Your task to perform on an android device: change alarm snooze length Image 0: 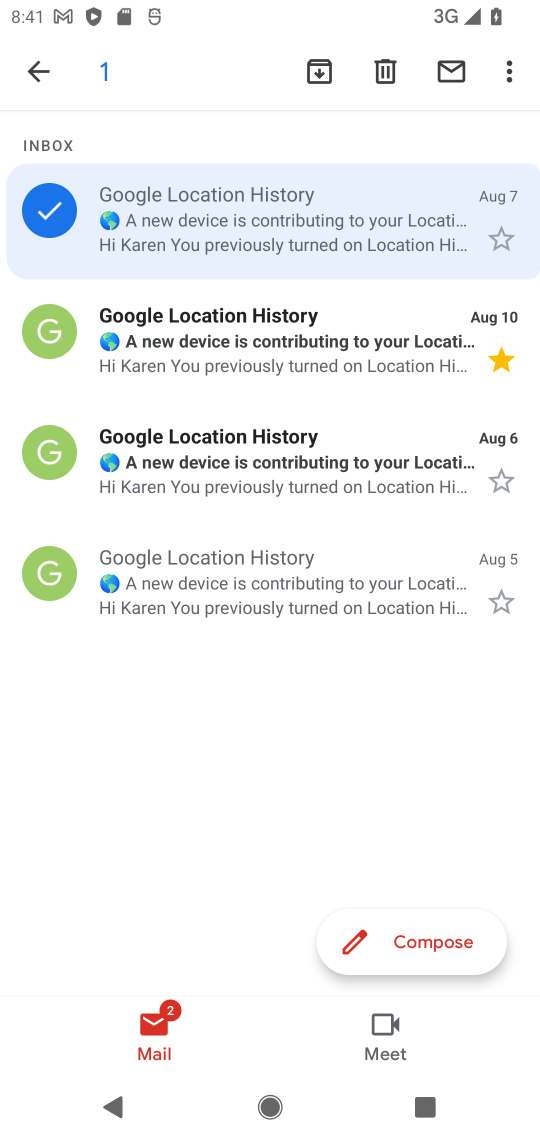
Step 0: press home button
Your task to perform on an android device: change alarm snooze length Image 1: 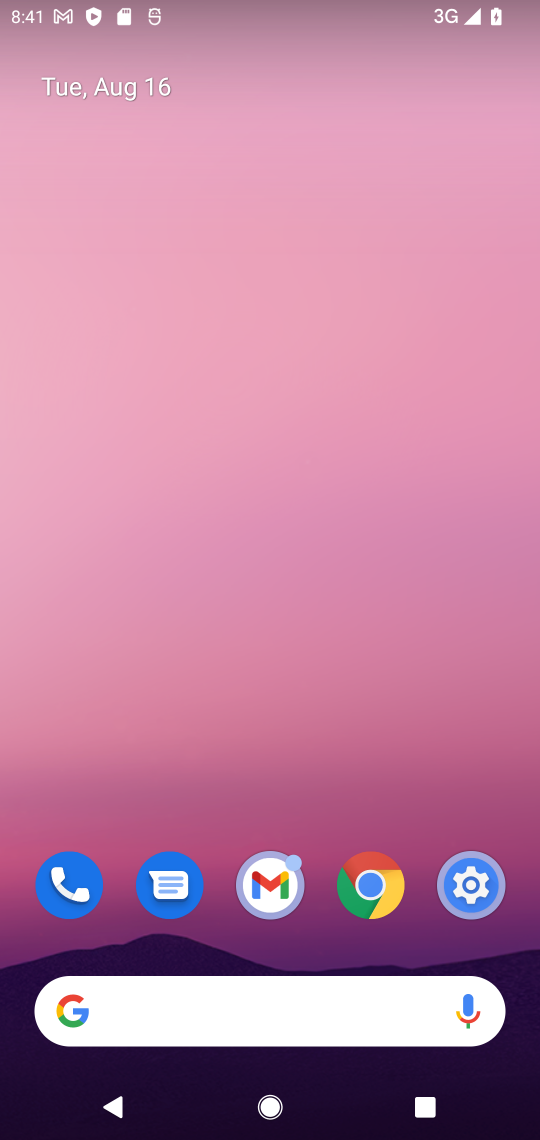
Step 1: drag from (214, 849) to (273, 248)
Your task to perform on an android device: change alarm snooze length Image 2: 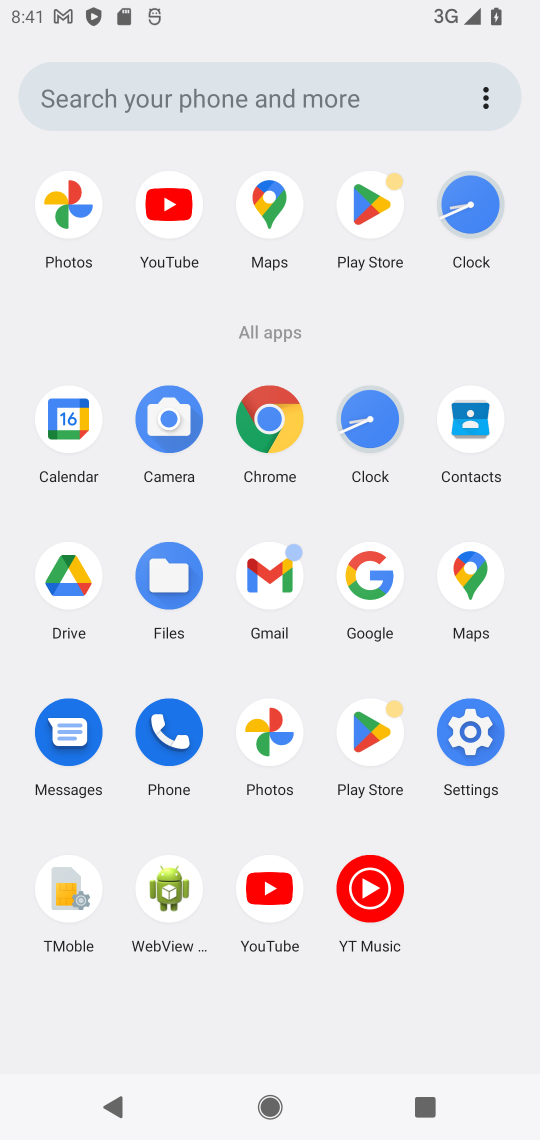
Step 2: drag from (306, 314) to (287, 576)
Your task to perform on an android device: change alarm snooze length Image 3: 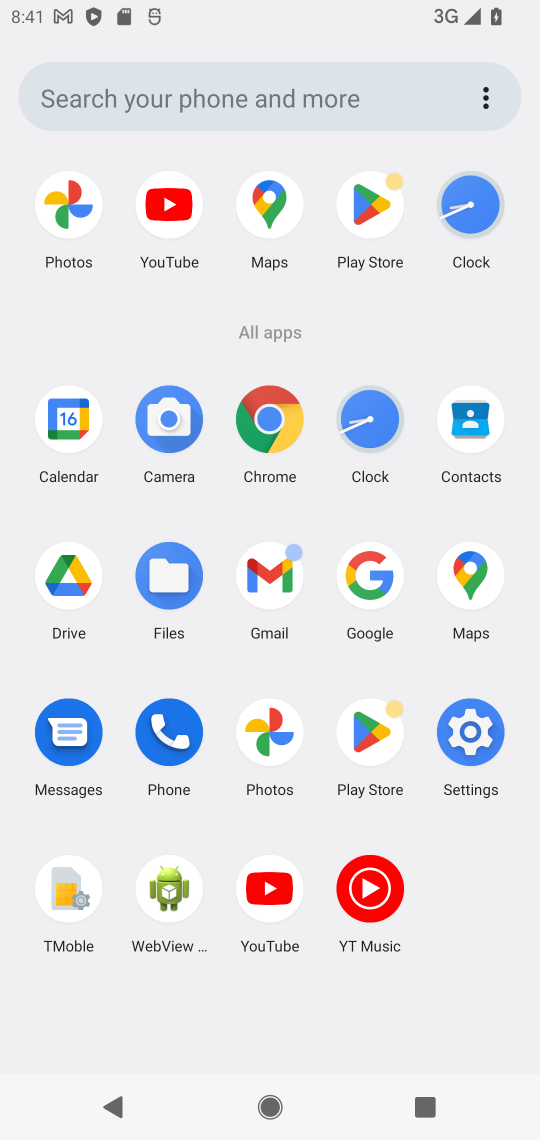
Step 3: click (307, 699)
Your task to perform on an android device: change alarm snooze length Image 4: 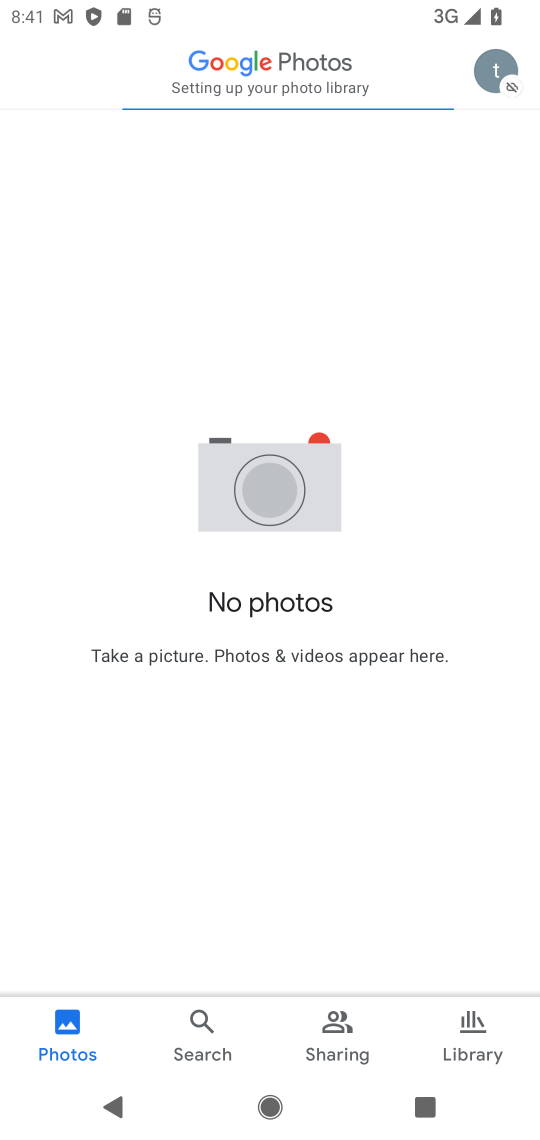
Step 4: press home button
Your task to perform on an android device: change alarm snooze length Image 5: 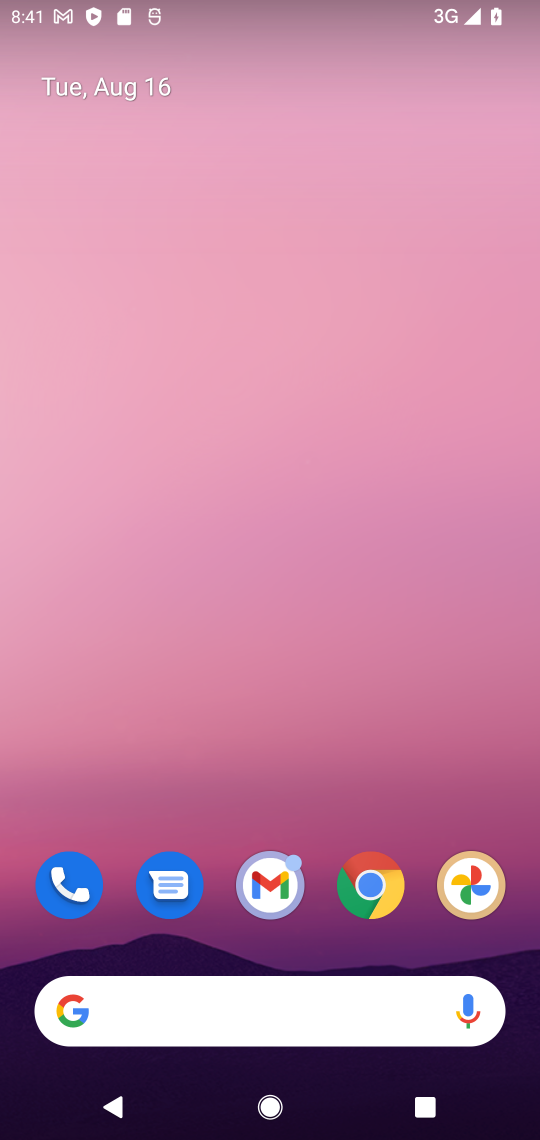
Step 5: drag from (267, 706) to (267, 417)
Your task to perform on an android device: change alarm snooze length Image 6: 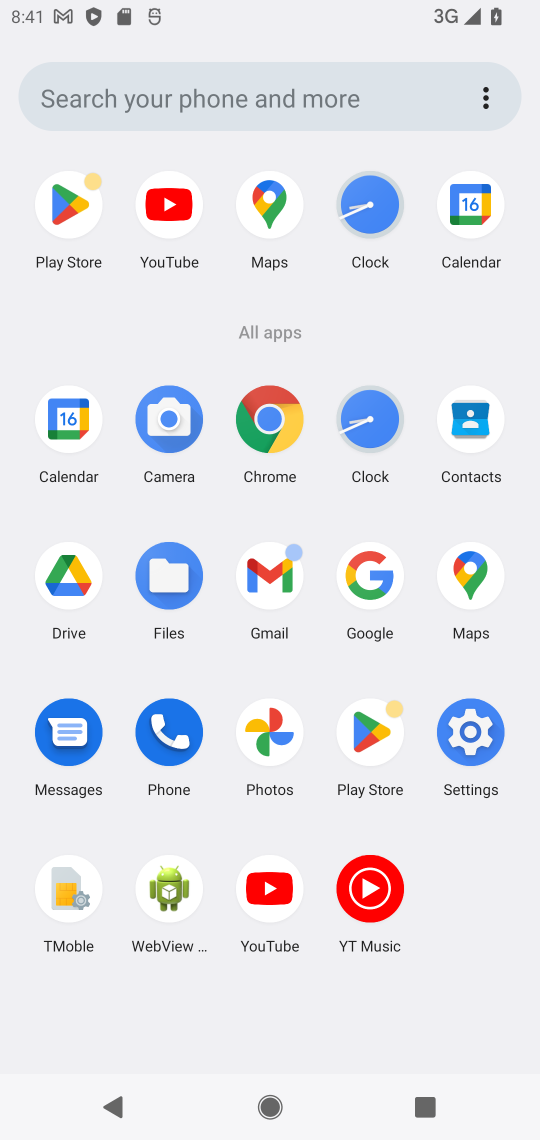
Step 6: click (369, 473)
Your task to perform on an android device: change alarm snooze length Image 7: 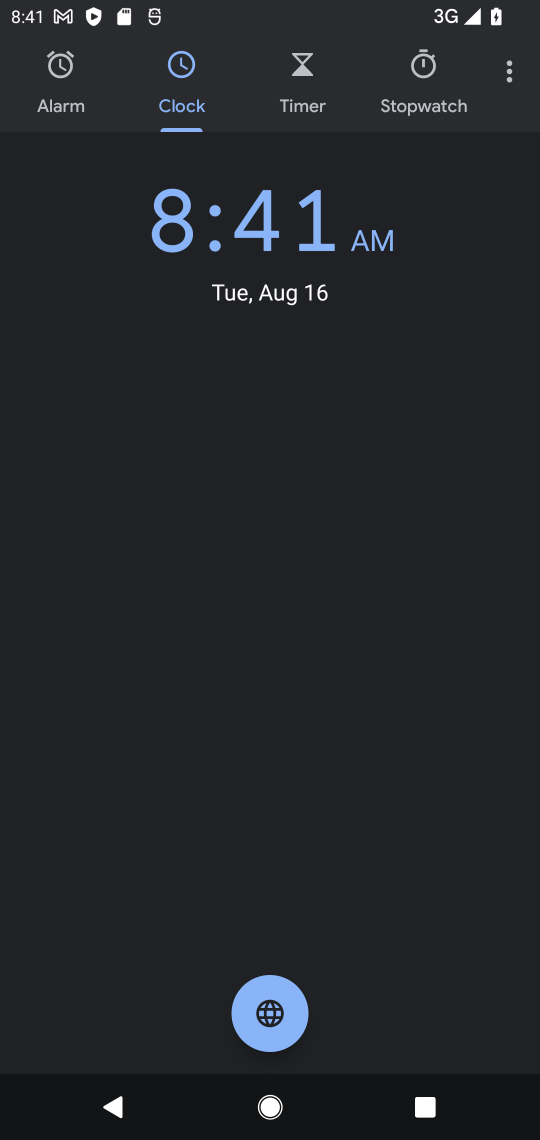
Step 7: click (510, 80)
Your task to perform on an android device: change alarm snooze length Image 8: 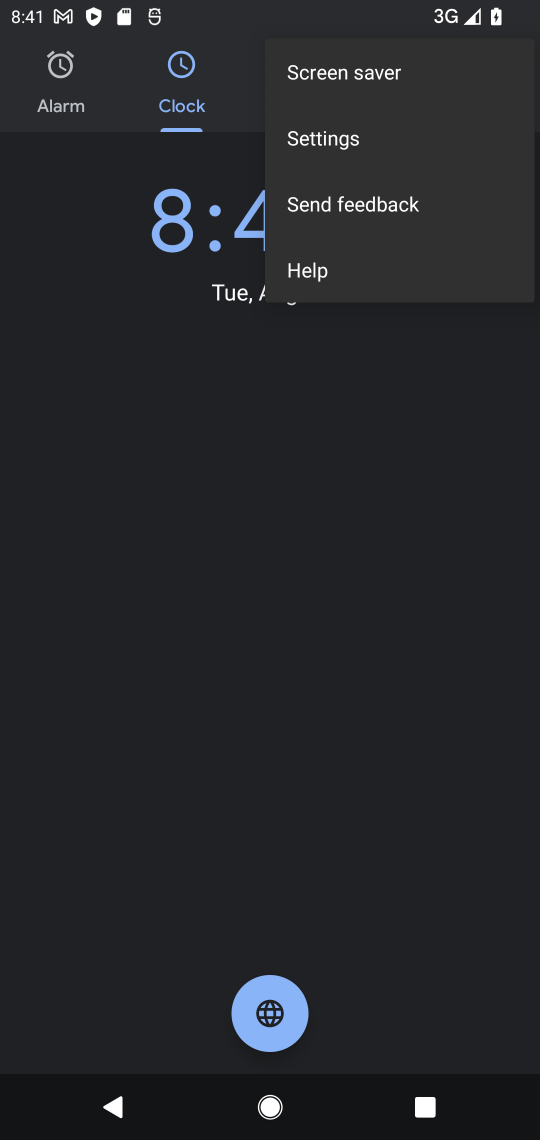
Step 8: click (301, 148)
Your task to perform on an android device: change alarm snooze length Image 9: 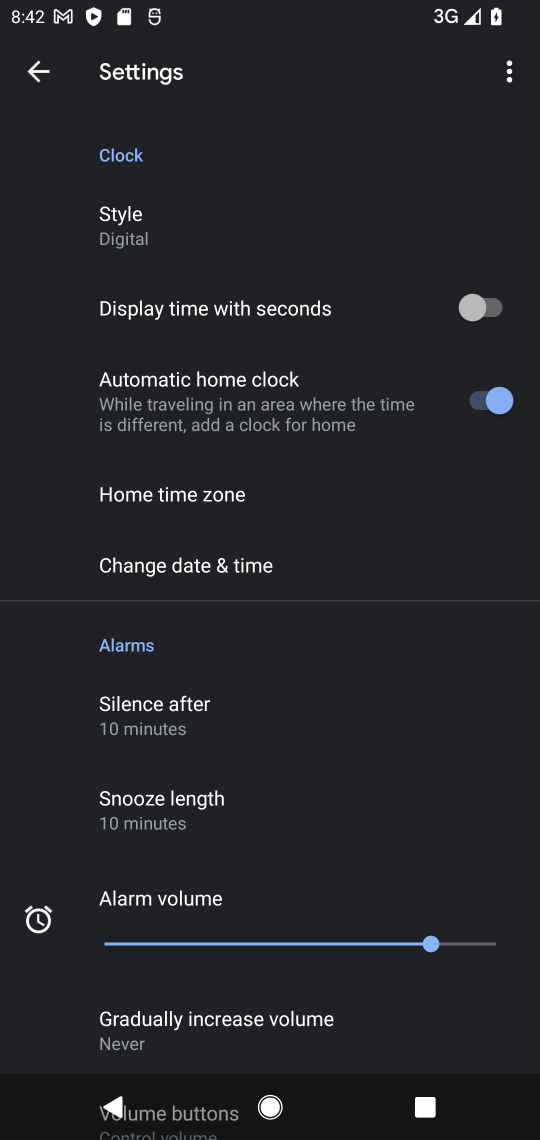
Step 9: click (217, 825)
Your task to perform on an android device: change alarm snooze length Image 10: 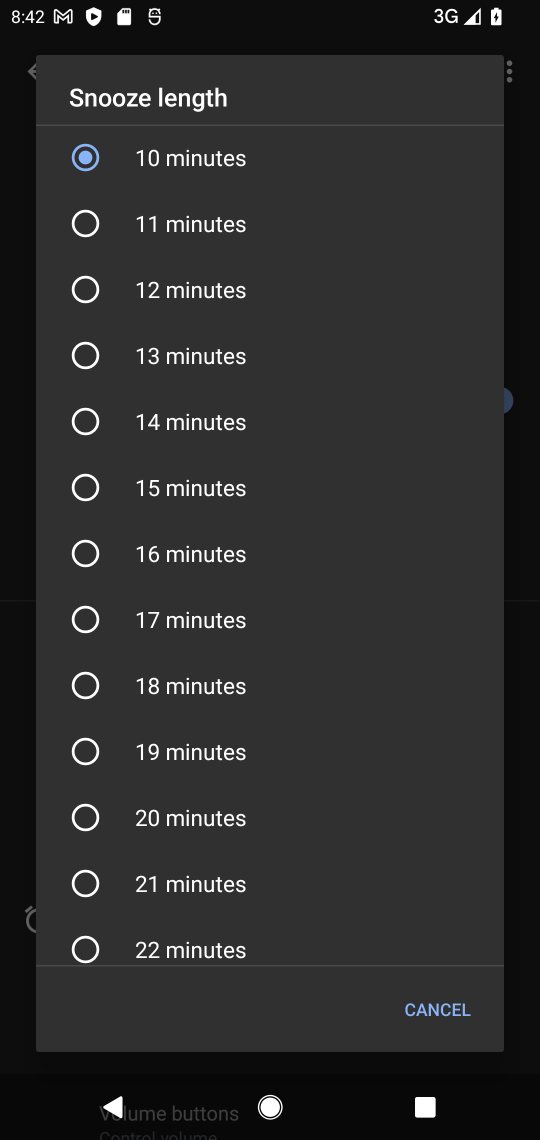
Step 10: click (97, 685)
Your task to perform on an android device: change alarm snooze length Image 11: 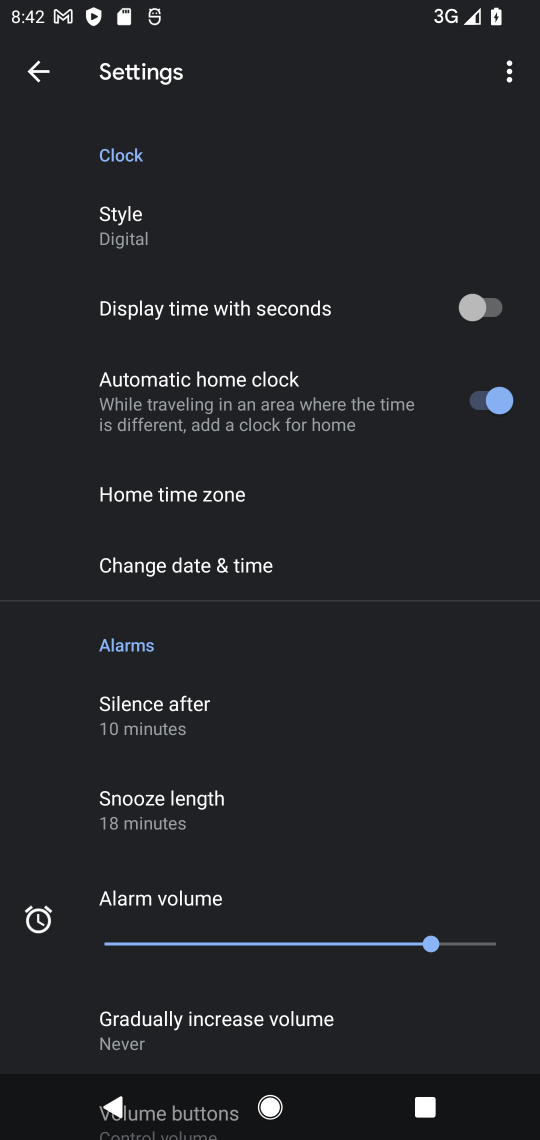
Step 11: task complete